Your task to perform on an android device: clear all cookies in the chrome app Image 0: 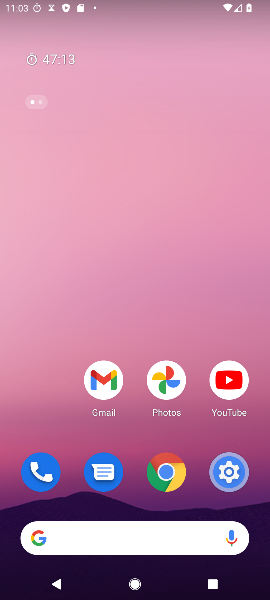
Step 0: click (168, 482)
Your task to perform on an android device: clear all cookies in the chrome app Image 1: 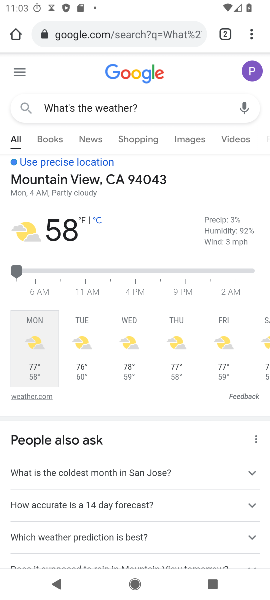
Step 1: click (254, 39)
Your task to perform on an android device: clear all cookies in the chrome app Image 2: 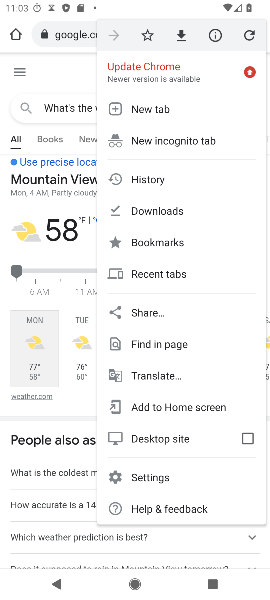
Step 2: click (153, 176)
Your task to perform on an android device: clear all cookies in the chrome app Image 3: 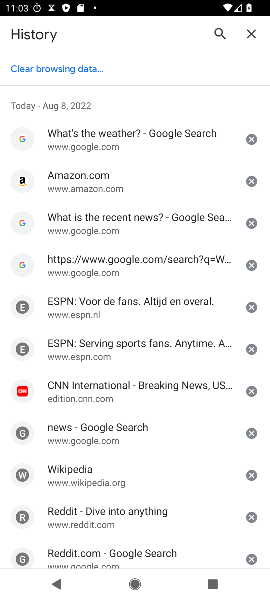
Step 3: click (66, 62)
Your task to perform on an android device: clear all cookies in the chrome app Image 4: 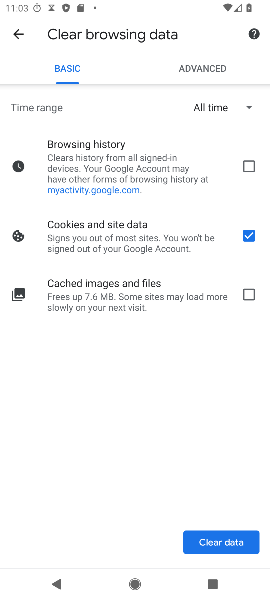
Step 4: click (202, 545)
Your task to perform on an android device: clear all cookies in the chrome app Image 5: 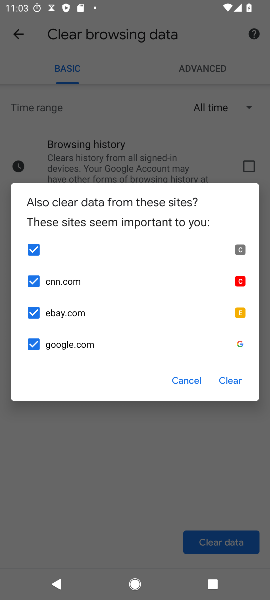
Step 5: click (228, 377)
Your task to perform on an android device: clear all cookies in the chrome app Image 6: 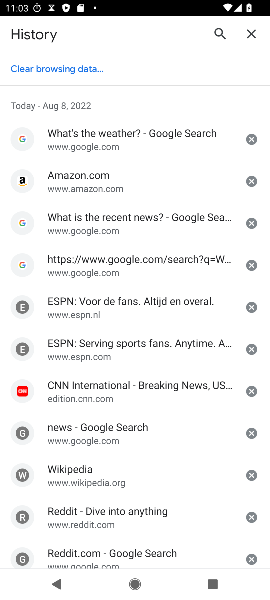
Step 6: task complete